Your task to perform on an android device: Show me productivity apps on the Play Store Image 0: 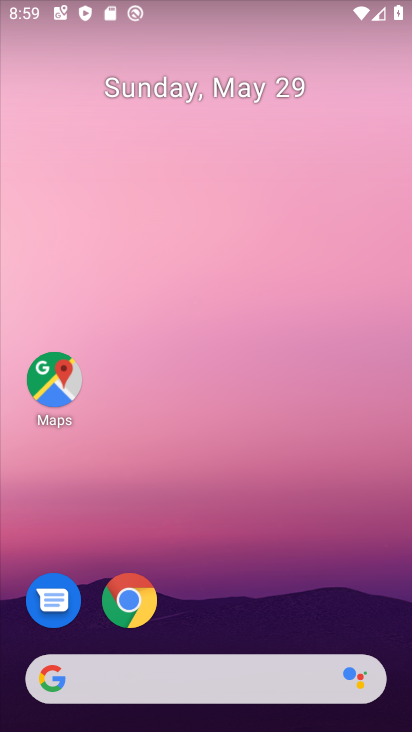
Step 0: drag from (191, 724) to (136, 7)
Your task to perform on an android device: Show me productivity apps on the Play Store Image 1: 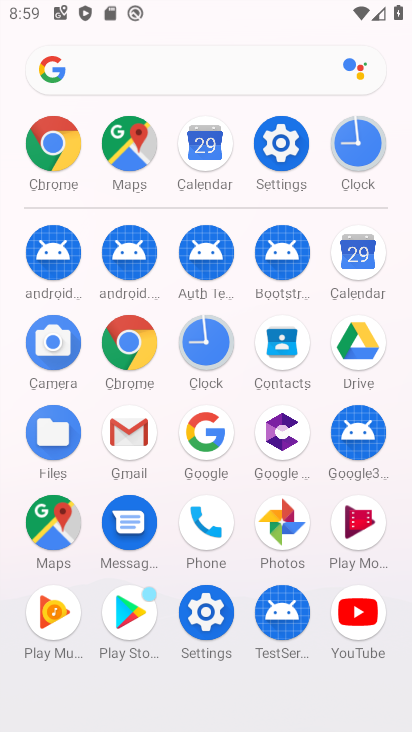
Step 1: click (126, 607)
Your task to perform on an android device: Show me productivity apps on the Play Store Image 2: 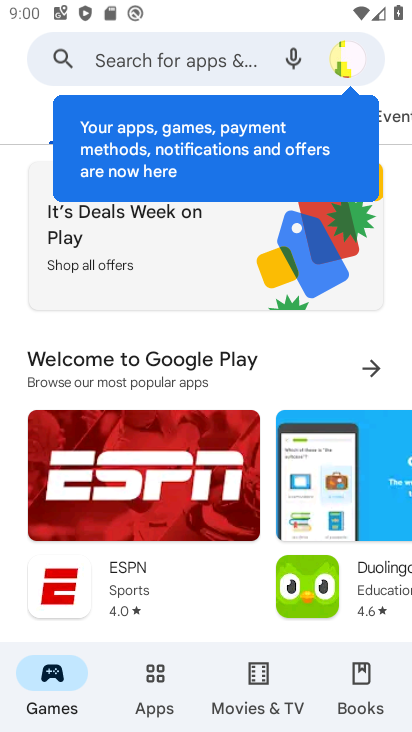
Step 2: click (158, 679)
Your task to perform on an android device: Show me productivity apps on the Play Store Image 3: 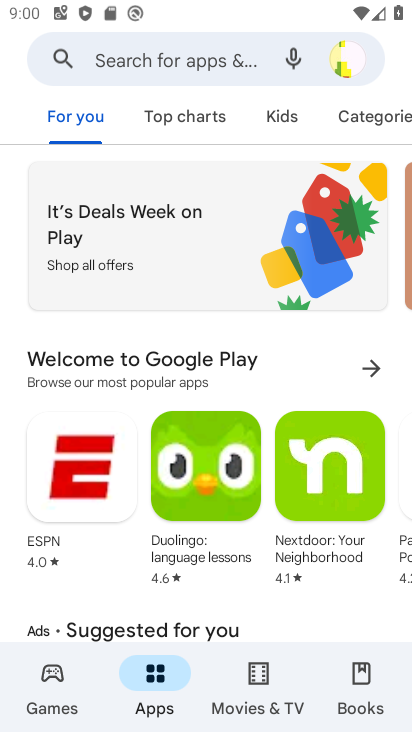
Step 3: click (383, 117)
Your task to perform on an android device: Show me productivity apps on the Play Store Image 4: 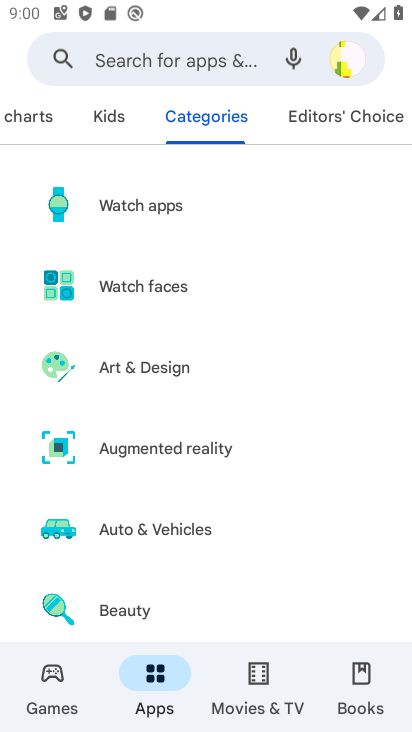
Step 4: drag from (200, 612) to (197, 98)
Your task to perform on an android device: Show me productivity apps on the Play Store Image 5: 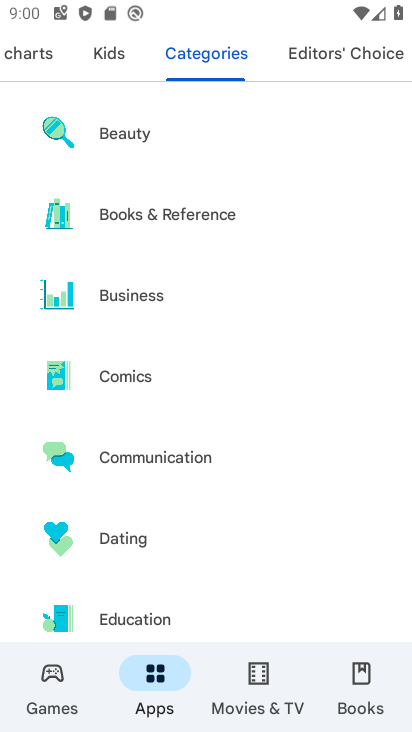
Step 5: drag from (181, 571) to (178, 221)
Your task to perform on an android device: Show me productivity apps on the Play Store Image 6: 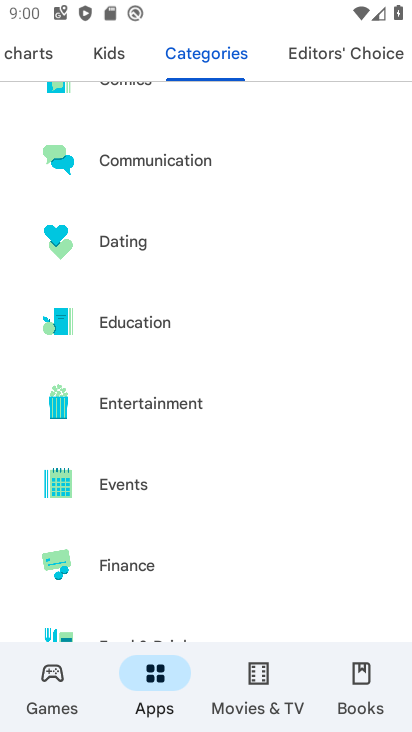
Step 6: drag from (176, 595) to (189, 152)
Your task to perform on an android device: Show me productivity apps on the Play Store Image 7: 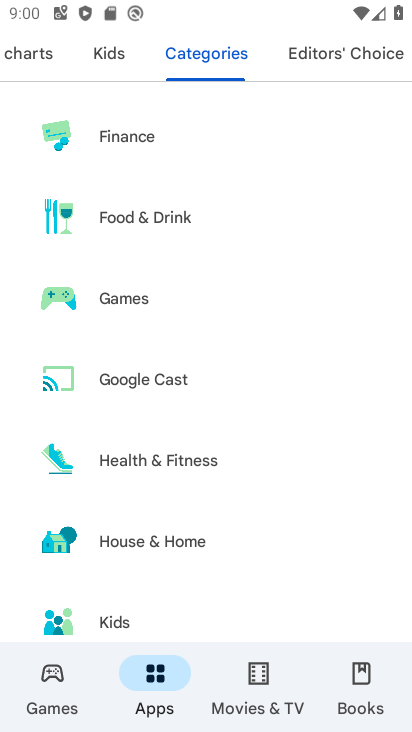
Step 7: drag from (154, 616) to (169, 182)
Your task to perform on an android device: Show me productivity apps on the Play Store Image 8: 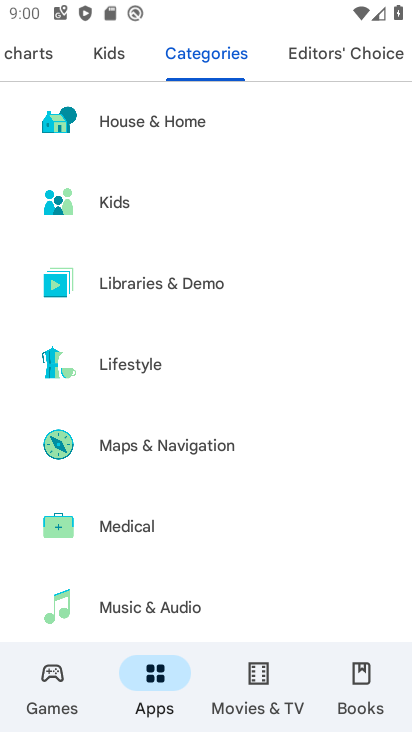
Step 8: drag from (165, 575) to (174, 244)
Your task to perform on an android device: Show me productivity apps on the Play Store Image 9: 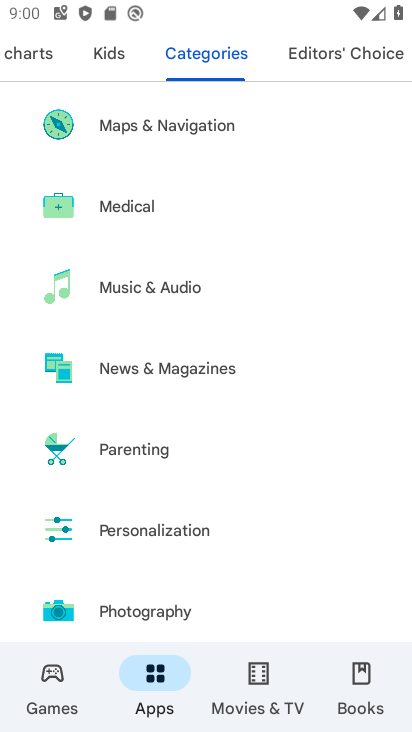
Step 9: drag from (193, 586) to (183, 204)
Your task to perform on an android device: Show me productivity apps on the Play Store Image 10: 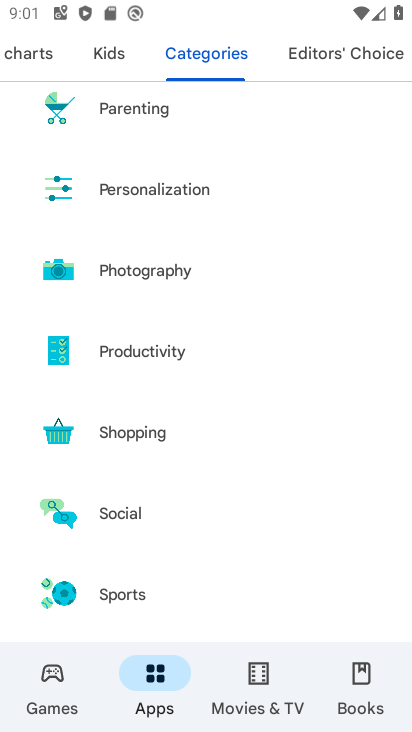
Step 10: click (152, 354)
Your task to perform on an android device: Show me productivity apps on the Play Store Image 11: 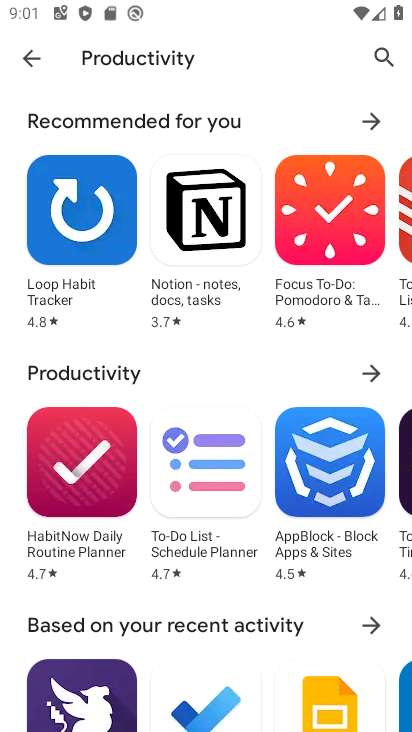
Step 11: task complete